Your task to perform on an android device: change the clock display to analog Image 0: 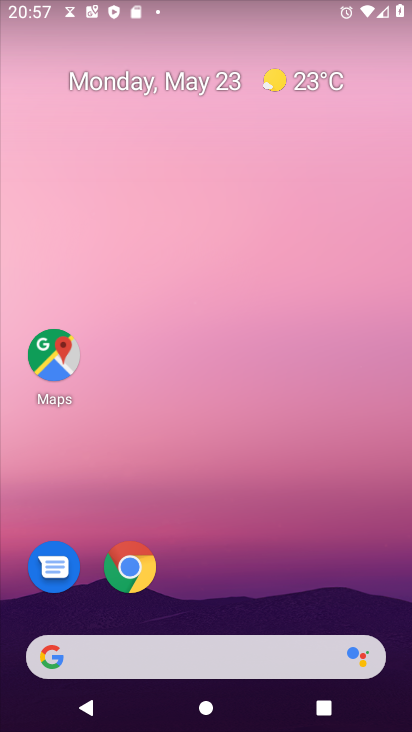
Step 0: drag from (280, 580) to (264, 287)
Your task to perform on an android device: change the clock display to analog Image 1: 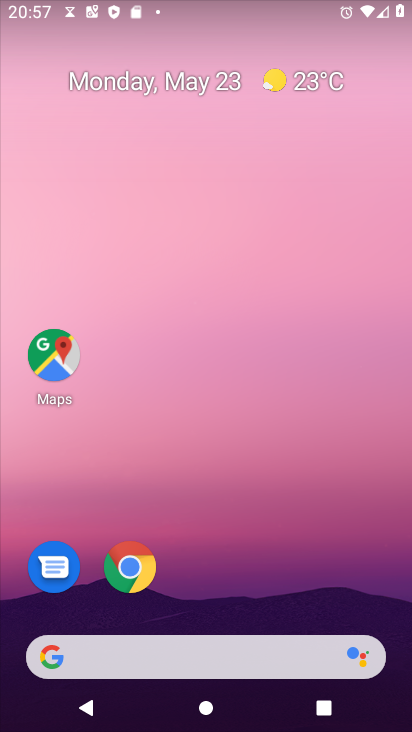
Step 1: drag from (240, 549) to (218, 143)
Your task to perform on an android device: change the clock display to analog Image 2: 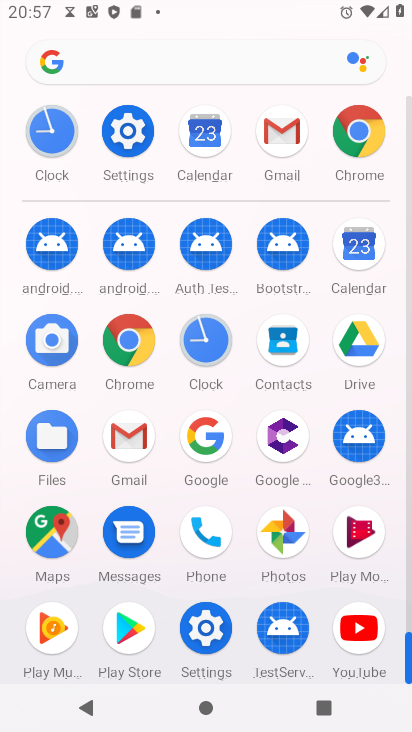
Step 2: click (203, 350)
Your task to perform on an android device: change the clock display to analog Image 3: 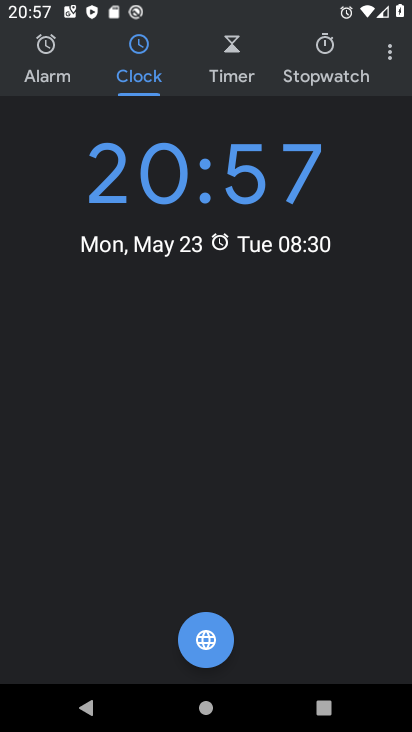
Step 3: click (381, 47)
Your task to perform on an android device: change the clock display to analog Image 4: 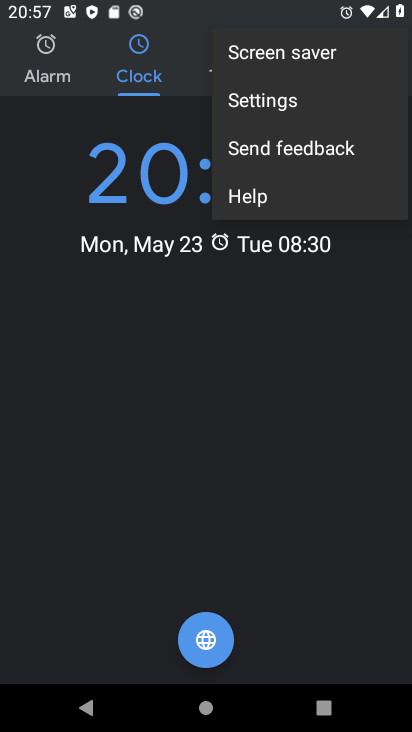
Step 4: click (266, 97)
Your task to perform on an android device: change the clock display to analog Image 5: 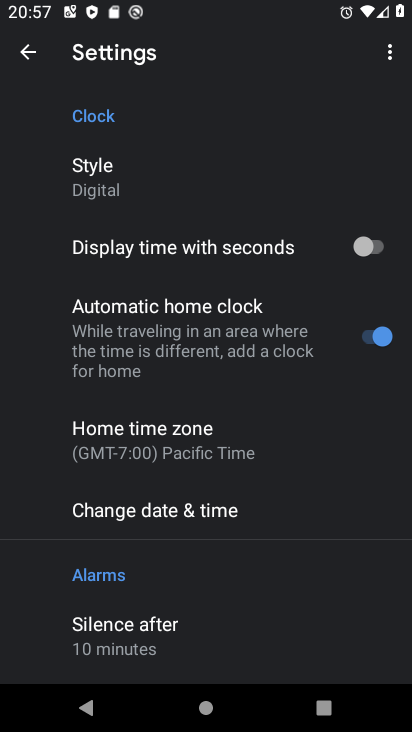
Step 5: click (107, 186)
Your task to perform on an android device: change the clock display to analog Image 6: 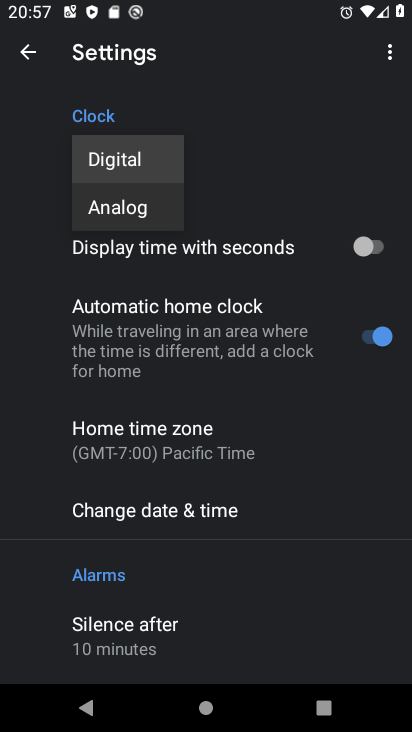
Step 6: click (120, 201)
Your task to perform on an android device: change the clock display to analog Image 7: 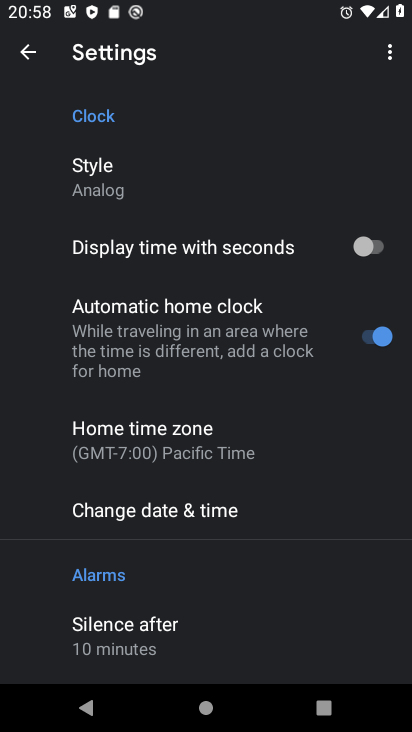
Step 7: task complete